Your task to perform on an android device: add a contact in the contacts app Image 0: 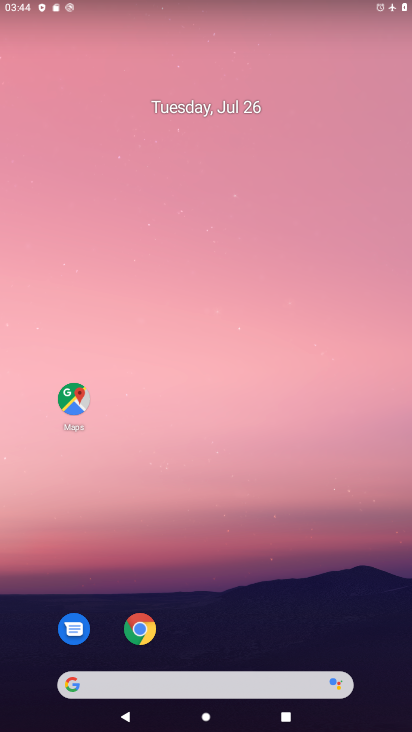
Step 0: drag from (278, 587) to (276, 88)
Your task to perform on an android device: add a contact in the contacts app Image 1: 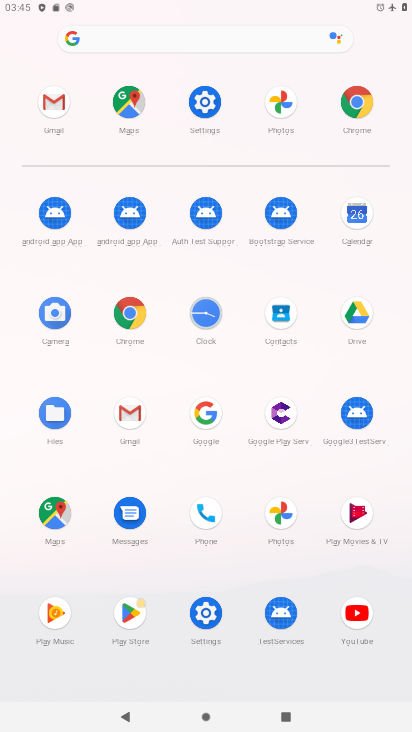
Step 1: click (278, 310)
Your task to perform on an android device: add a contact in the contacts app Image 2: 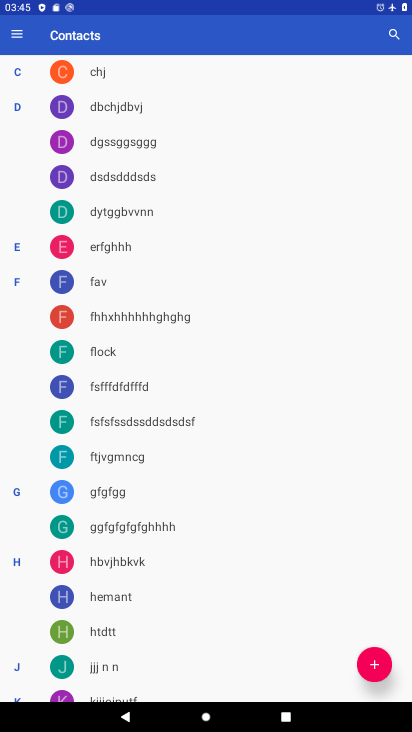
Step 2: click (381, 661)
Your task to perform on an android device: add a contact in the contacts app Image 3: 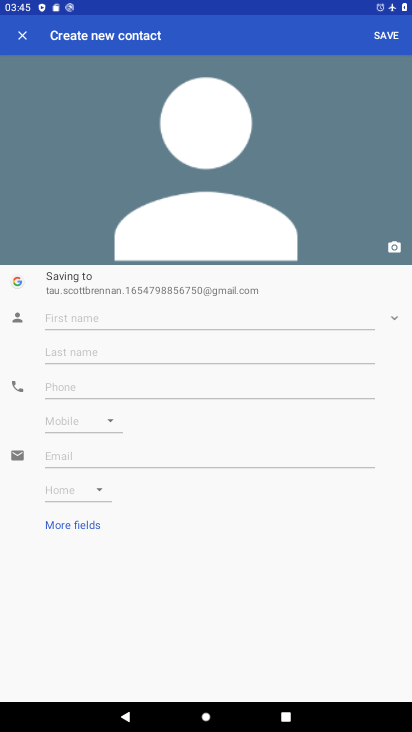
Step 3: click (153, 312)
Your task to perform on an android device: add a contact in the contacts app Image 4: 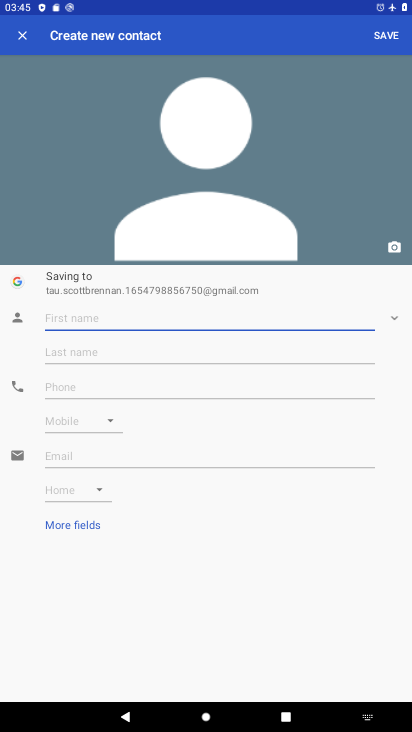
Step 4: type "mmmmmcc"
Your task to perform on an android device: add a contact in the contacts app Image 5: 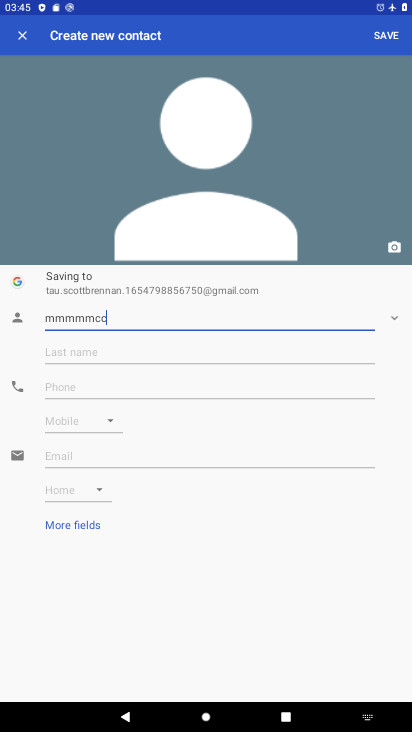
Step 5: click (96, 376)
Your task to perform on an android device: add a contact in the contacts app Image 6: 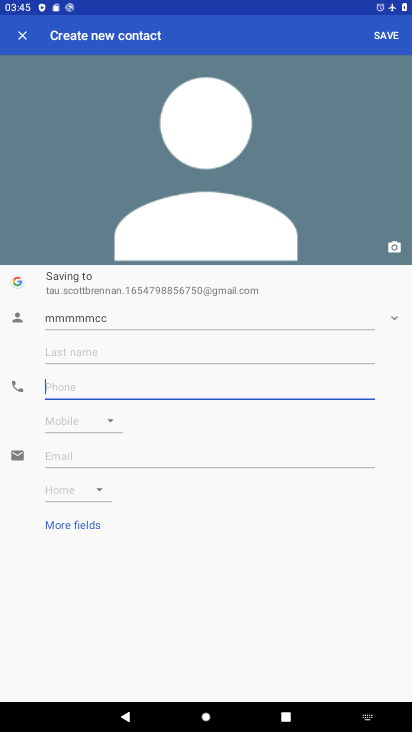
Step 6: type "005487"
Your task to perform on an android device: add a contact in the contacts app Image 7: 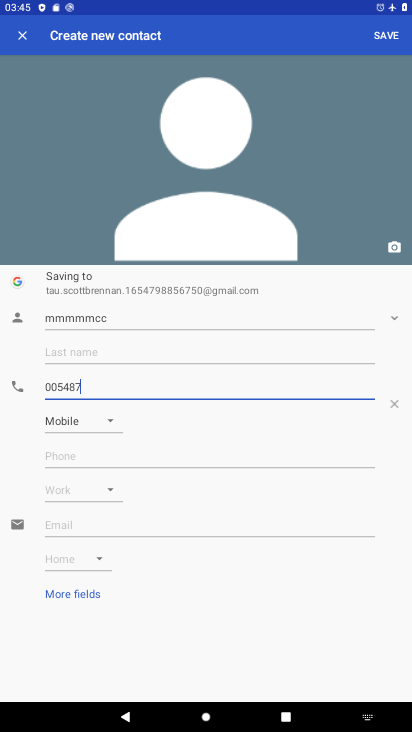
Step 7: click (392, 32)
Your task to perform on an android device: add a contact in the contacts app Image 8: 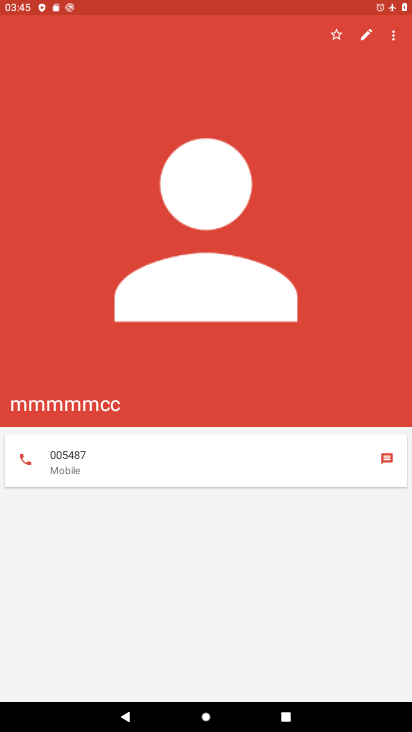
Step 8: task complete